Your task to perform on an android device: Check the news Image 0: 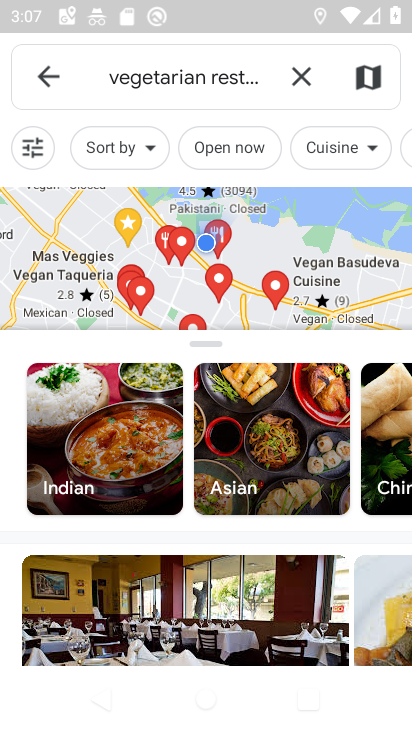
Step 0: press home button
Your task to perform on an android device: Check the news Image 1: 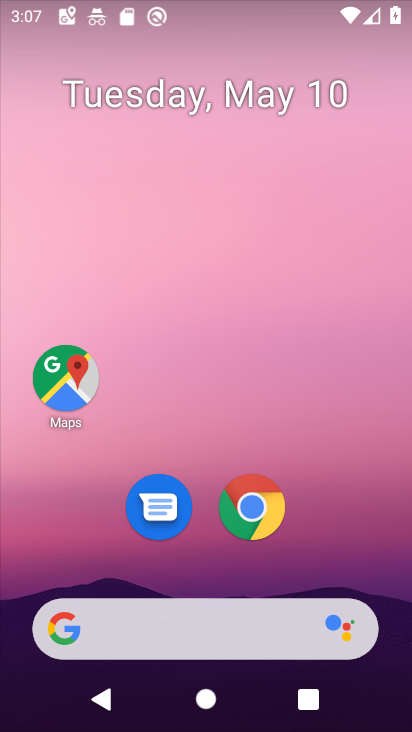
Step 1: click (251, 503)
Your task to perform on an android device: Check the news Image 2: 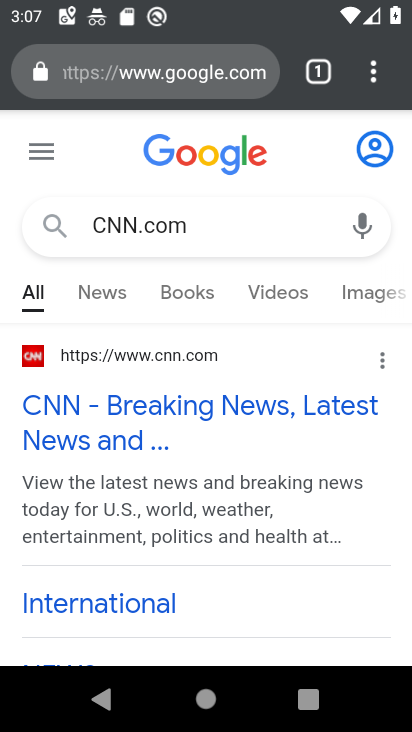
Step 2: click (147, 71)
Your task to perform on an android device: Check the news Image 3: 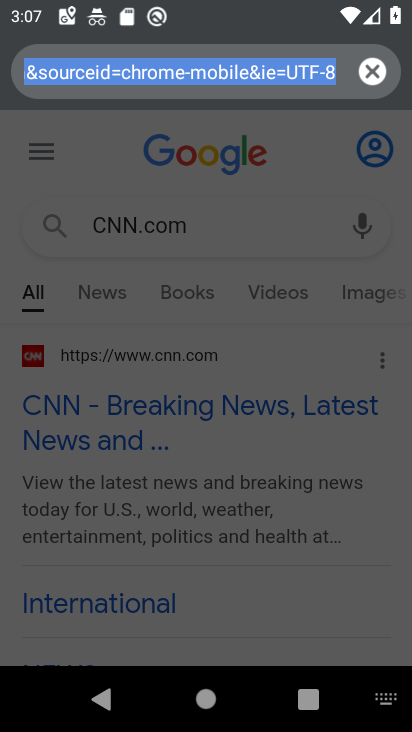
Step 3: type "news"
Your task to perform on an android device: Check the news Image 4: 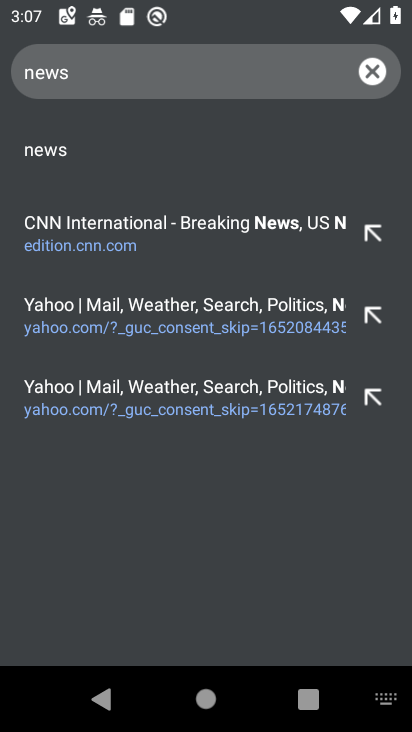
Step 4: click (90, 148)
Your task to perform on an android device: Check the news Image 5: 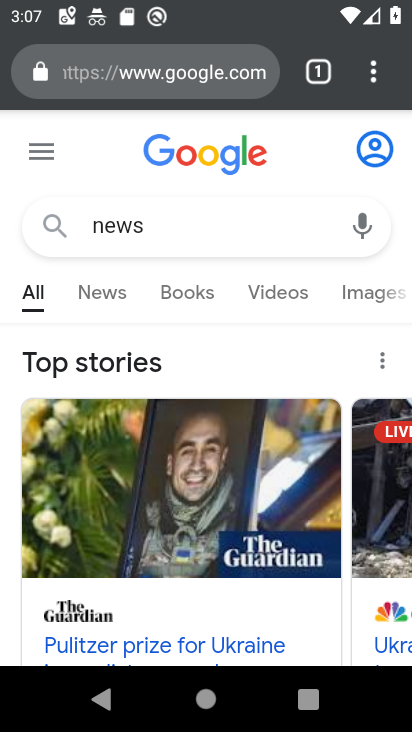
Step 5: task complete